Your task to perform on an android device: change notification settings in the gmail app Image 0: 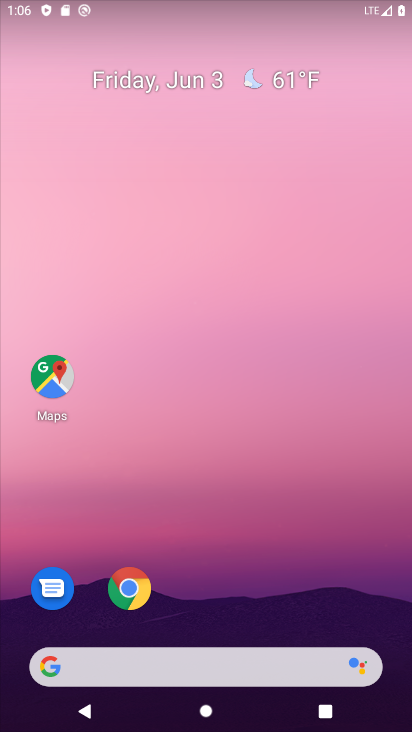
Step 0: drag from (17, 726) to (324, 191)
Your task to perform on an android device: change notification settings in the gmail app Image 1: 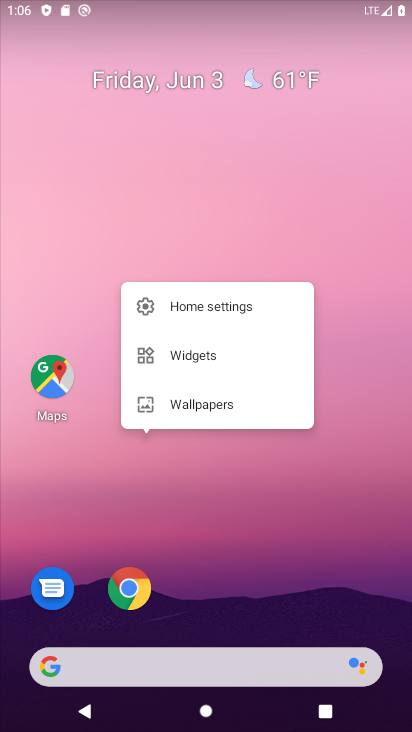
Step 1: drag from (27, 574) to (362, 61)
Your task to perform on an android device: change notification settings in the gmail app Image 2: 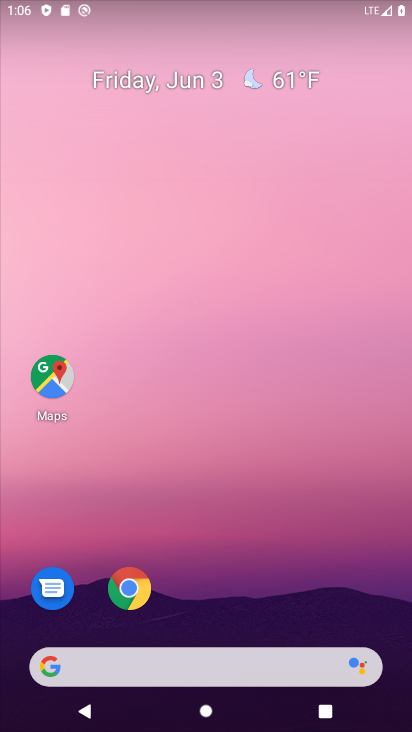
Step 2: press home button
Your task to perform on an android device: change notification settings in the gmail app Image 3: 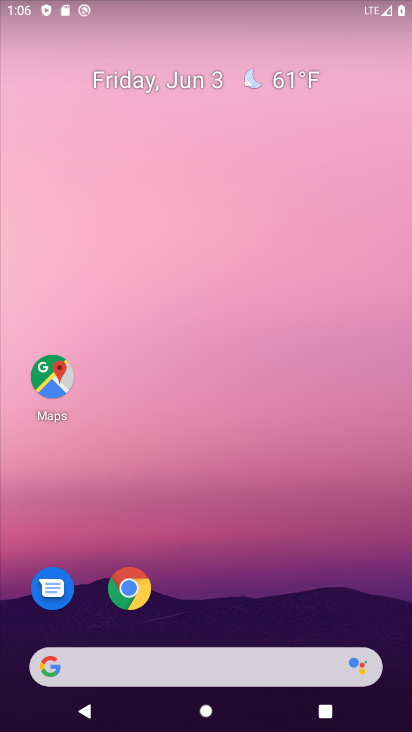
Step 3: drag from (13, 617) to (279, 100)
Your task to perform on an android device: change notification settings in the gmail app Image 4: 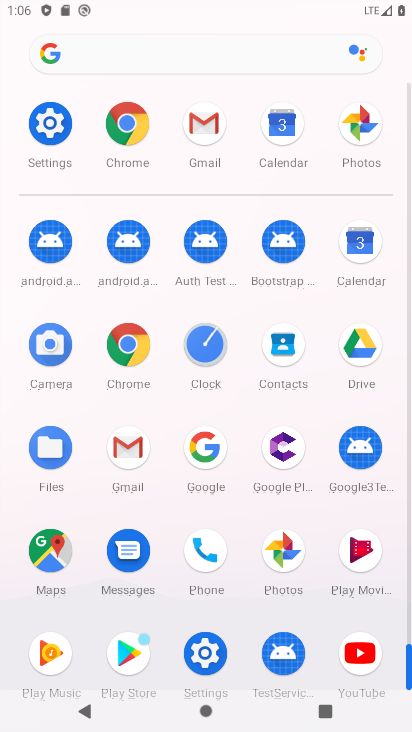
Step 4: click (206, 134)
Your task to perform on an android device: change notification settings in the gmail app Image 5: 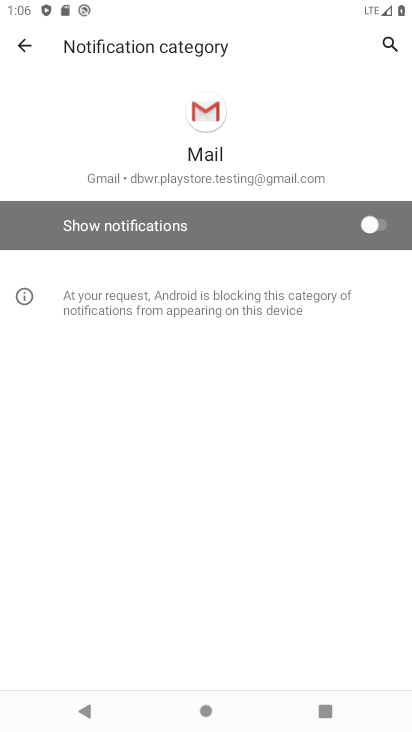
Step 5: click (372, 223)
Your task to perform on an android device: change notification settings in the gmail app Image 6: 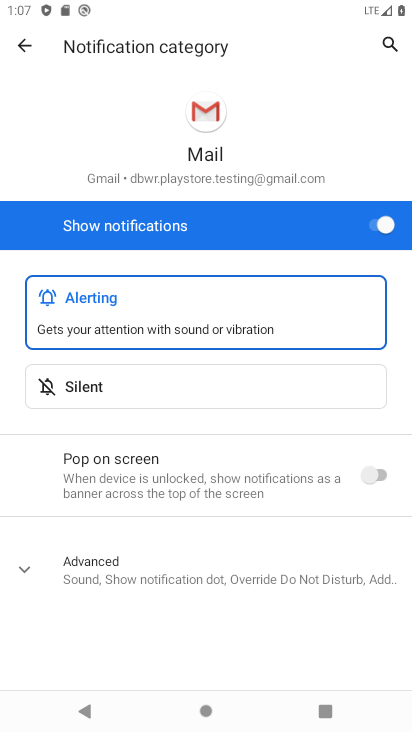
Step 6: click (396, 221)
Your task to perform on an android device: change notification settings in the gmail app Image 7: 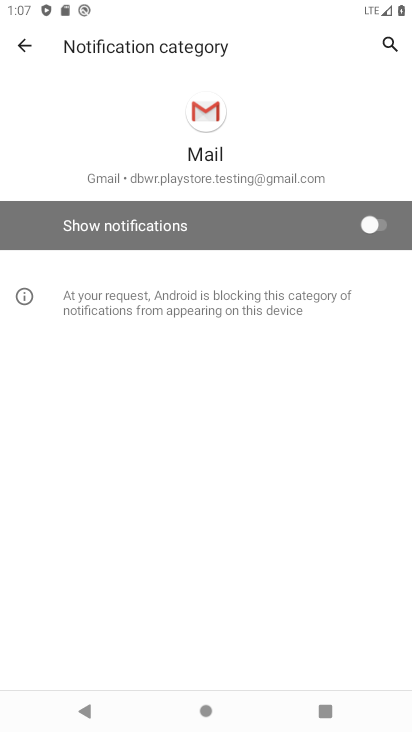
Step 7: task complete